Your task to perform on an android device: Empty the shopping cart on costco.com. Search for razer nari on costco.com, select the first entry, and add it to the cart. Image 0: 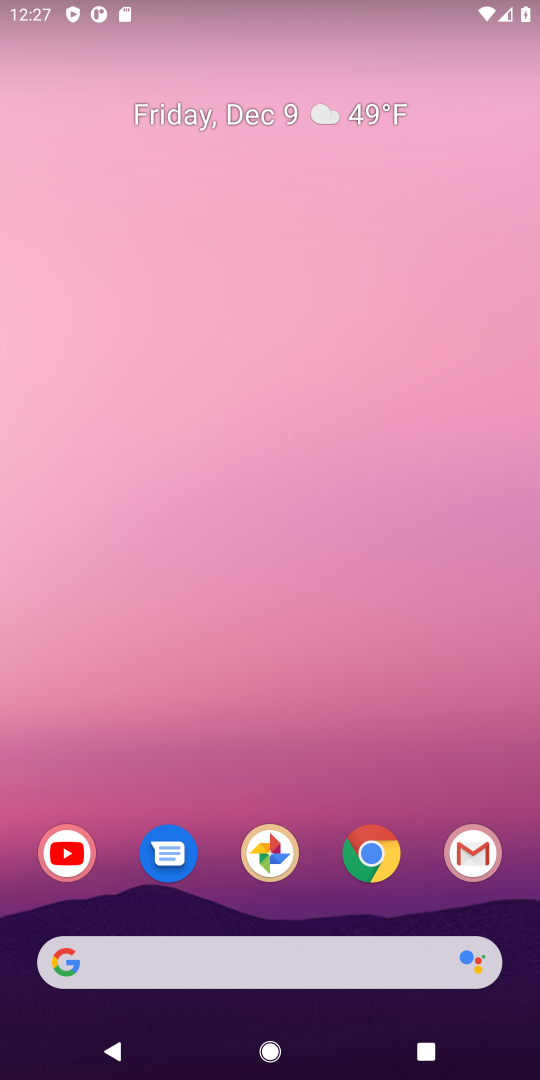
Step 0: drag from (178, 946) to (281, 134)
Your task to perform on an android device: Empty the shopping cart on costco.com. Search for razer nari on costco.com, select the first entry, and add it to the cart. Image 1: 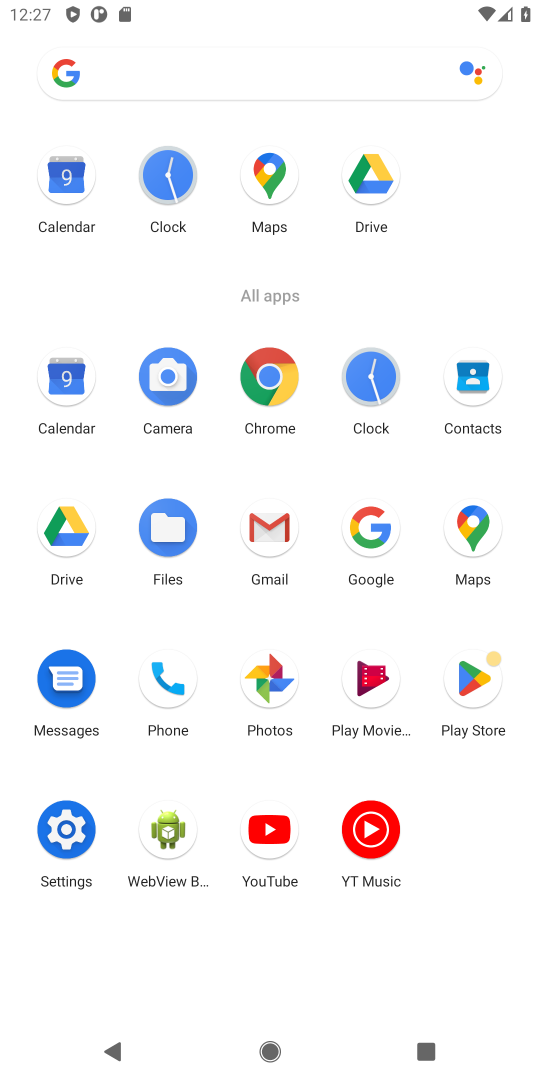
Step 1: click (373, 526)
Your task to perform on an android device: Empty the shopping cart on costco.com. Search for razer nari on costco.com, select the first entry, and add it to the cart. Image 2: 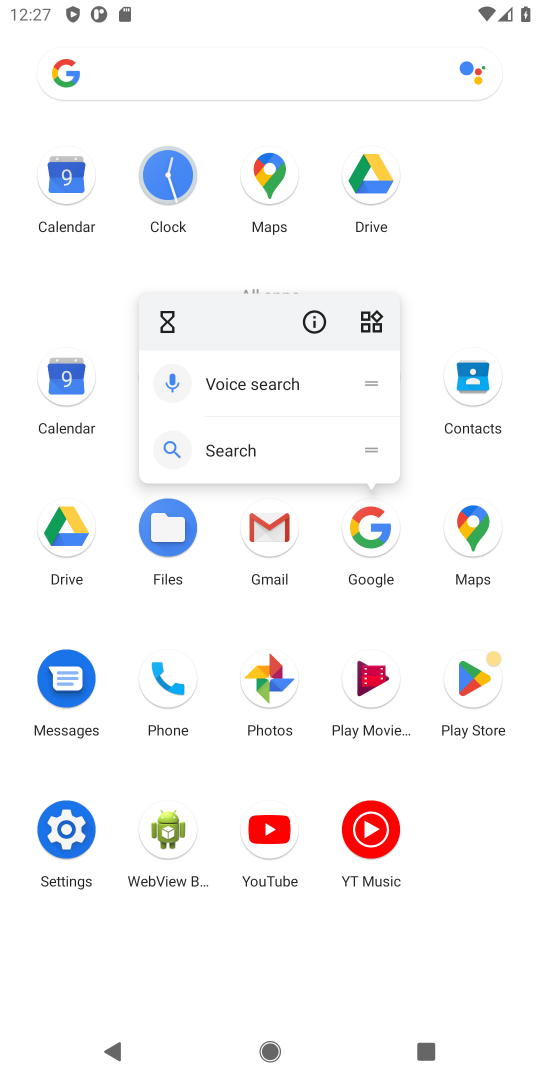
Step 2: click (368, 525)
Your task to perform on an android device: Empty the shopping cart on costco.com. Search for razer nari on costco.com, select the first entry, and add it to the cart. Image 3: 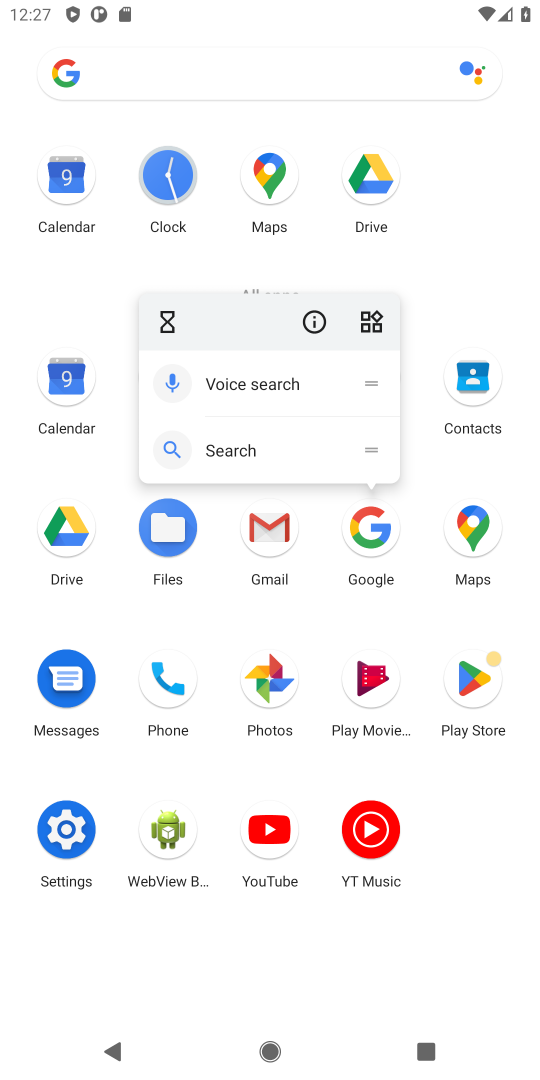
Step 3: click (361, 539)
Your task to perform on an android device: Empty the shopping cart on costco.com. Search for razer nari on costco.com, select the first entry, and add it to the cart. Image 4: 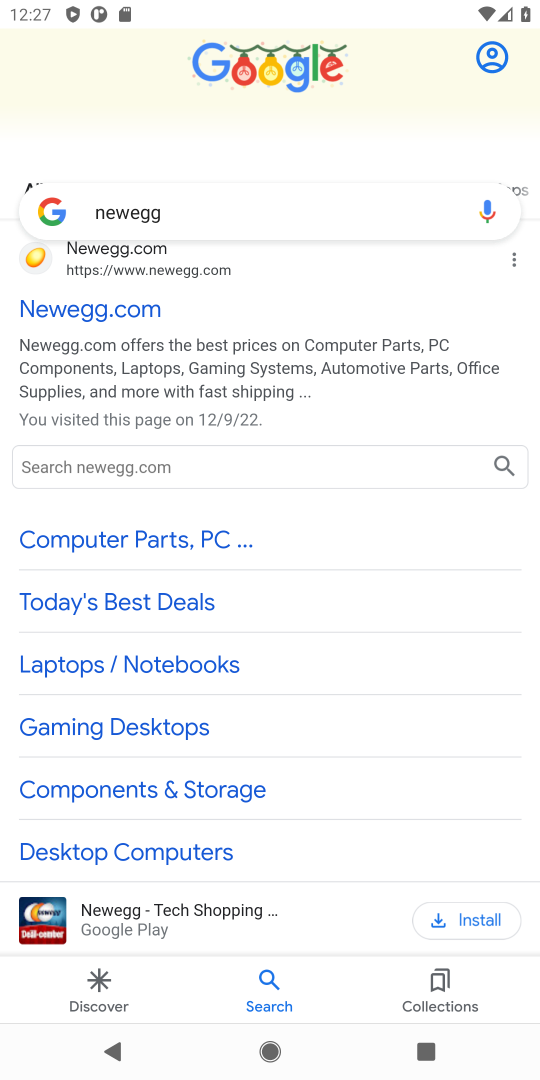
Step 4: click (152, 212)
Your task to perform on an android device: Empty the shopping cart on costco.com. Search for razer nari on costco.com, select the first entry, and add it to the cart. Image 5: 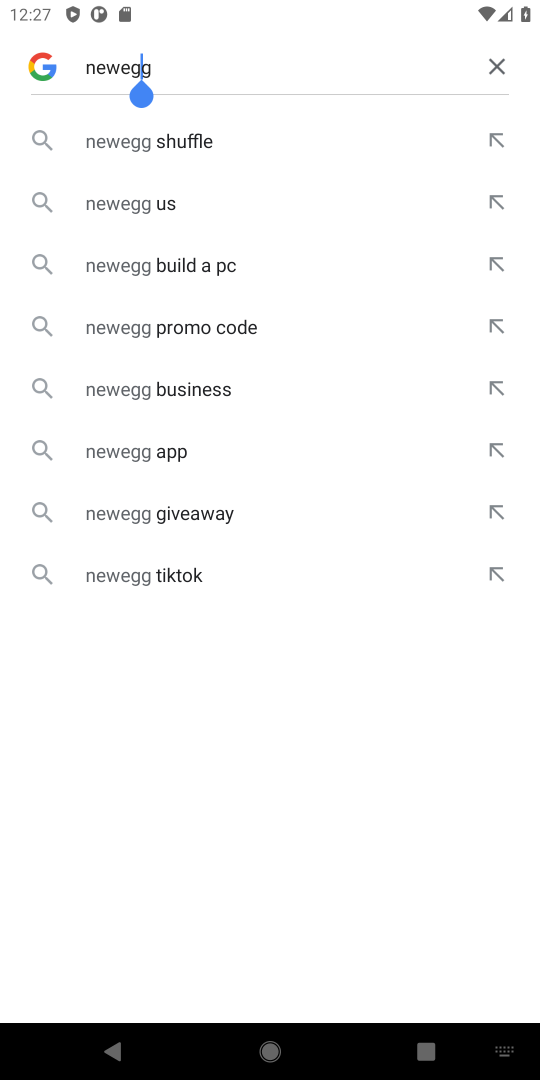
Step 5: click (495, 64)
Your task to perform on an android device: Empty the shopping cart on costco.com. Search for razer nari on costco.com, select the first entry, and add it to the cart. Image 6: 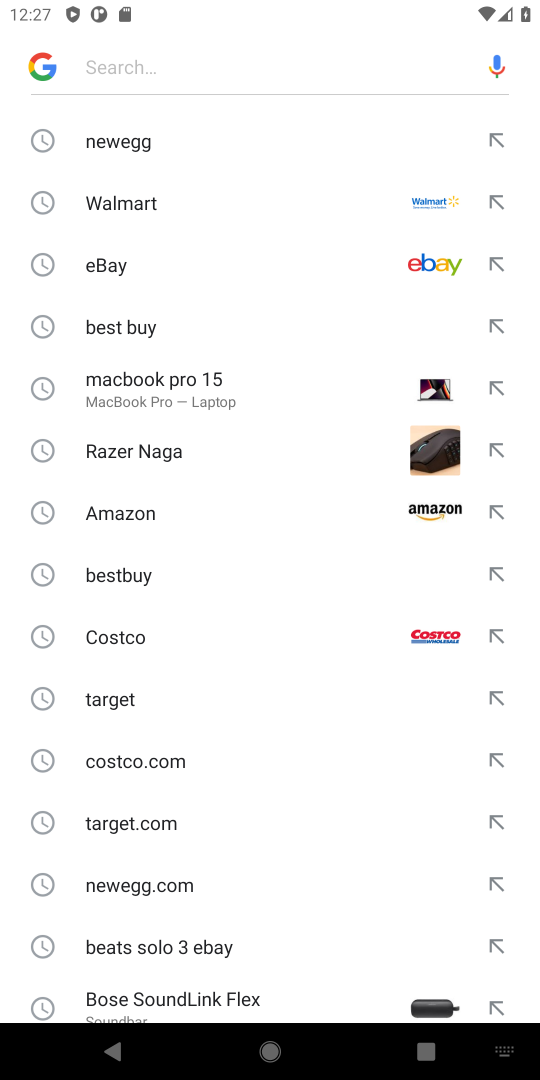
Step 6: click (127, 635)
Your task to perform on an android device: Empty the shopping cart on costco.com. Search for razer nari on costco.com, select the first entry, and add it to the cart. Image 7: 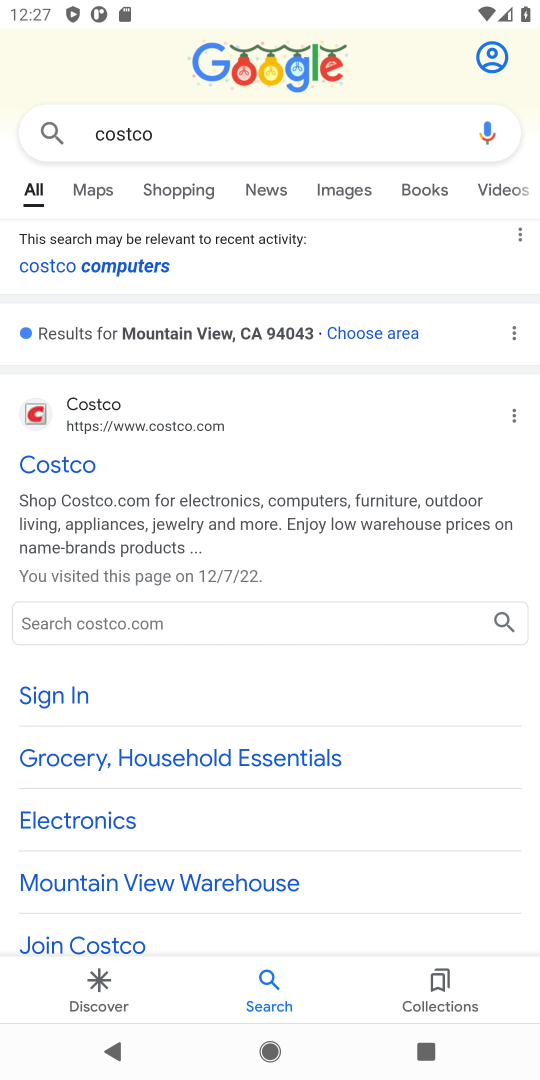
Step 7: click (47, 462)
Your task to perform on an android device: Empty the shopping cart on costco.com. Search for razer nari on costco.com, select the first entry, and add it to the cart. Image 8: 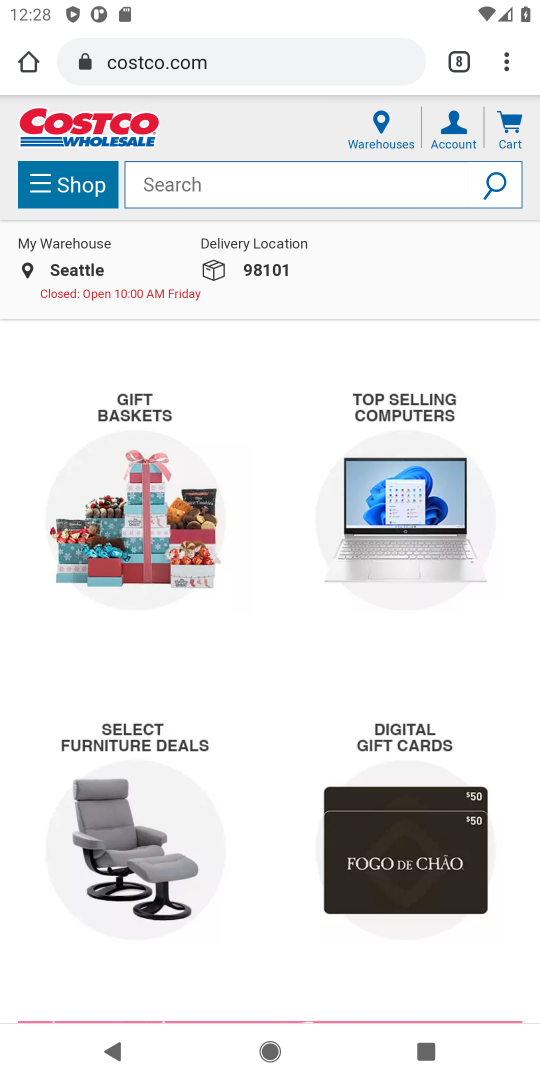
Step 8: click (170, 187)
Your task to perform on an android device: Empty the shopping cart on costco.com. Search for razer nari on costco.com, select the first entry, and add it to the cart. Image 9: 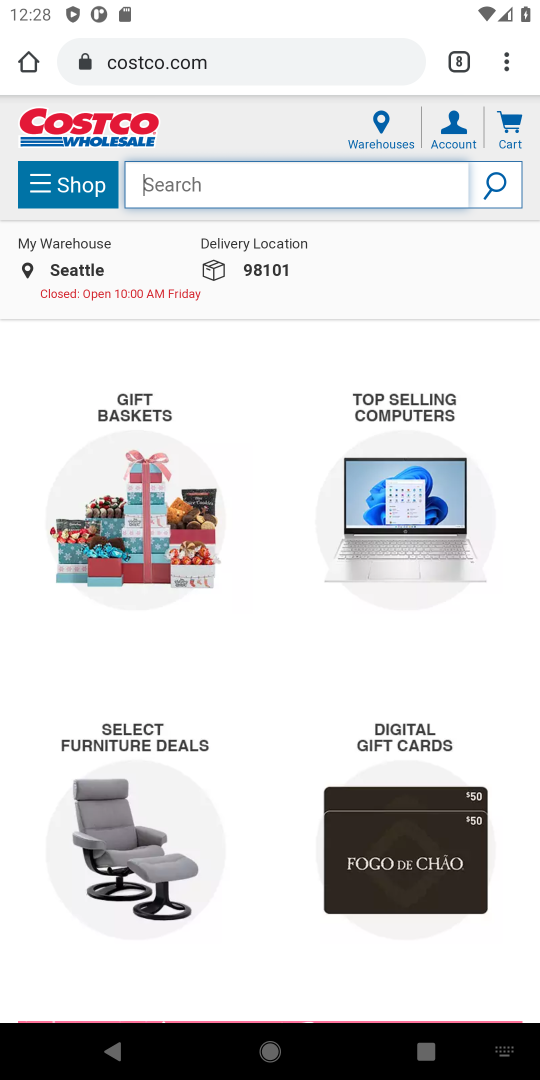
Step 9: type "razer nari "
Your task to perform on an android device: Empty the shopping cart on costco.com. Search for razer nari on costco.com, select the first entry, and add it to the cart. Image 10: 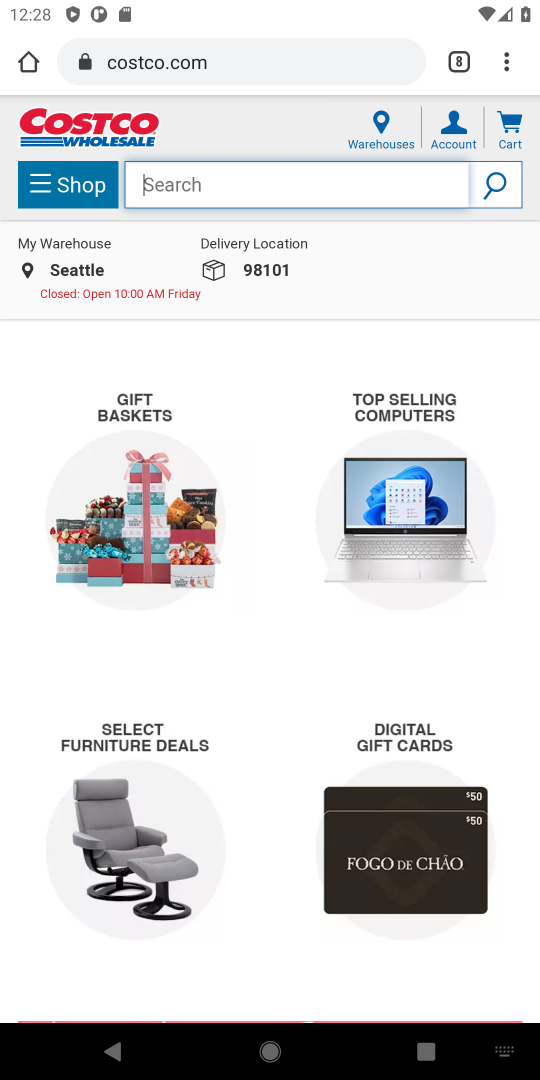
Step 10: click (500, 190)
Your task to perform on an android device: Empty the shopping cart on costco.com. Search for razer nari on costco.com, select the first entry, and add it to the cart. Image 11: 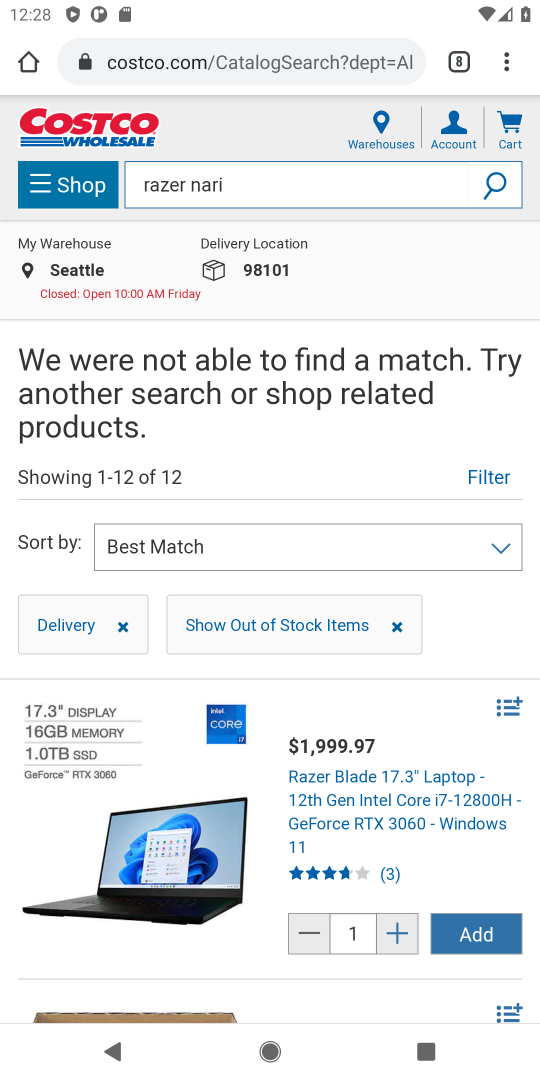
Step 11: click (466, 924)
Your task to perform on an android device: Empty the shopping cart on costco.com. Search for razer nari on costco.com, select the first entry, and add it to the cart. Image 12: 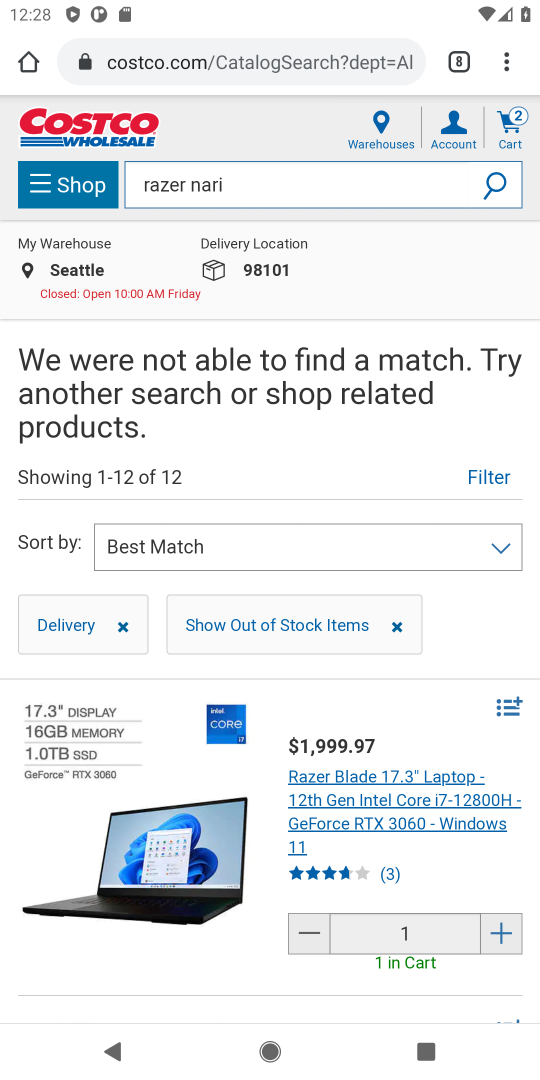
Step 12: click (515, 136)
Your task to perform on an android device: Empty the shopping cart on costco.com. Search for razer nari on costco.com, select the first entry, and add it to the cart. Image 13: 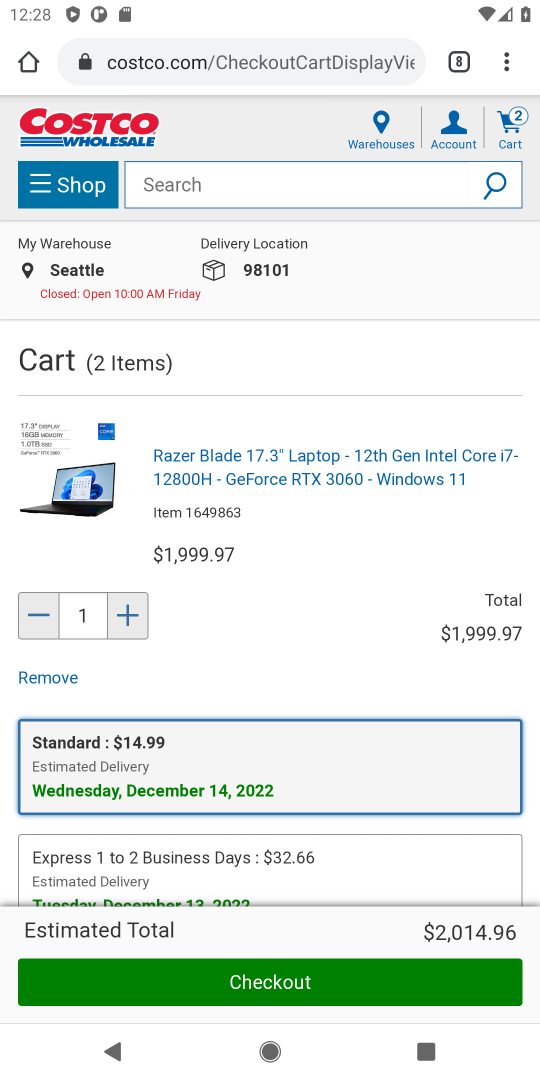
Step 13: click (241, 987)
Your task to perform on an android device: Empty the shopping cart on costco.com. Search for razer nari on costco.com, select the first entry, and add it to the cart. Image 14: 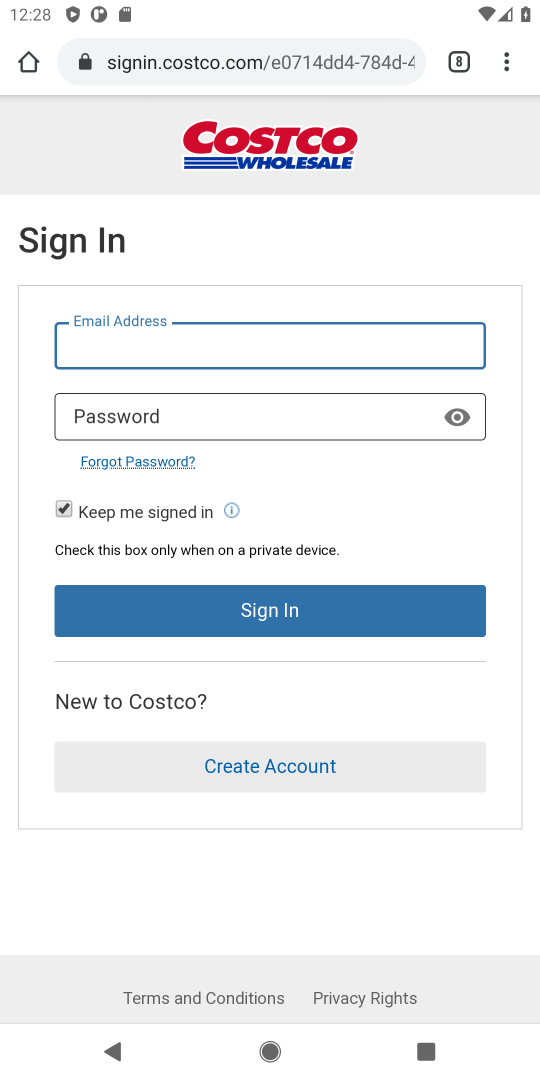
Step 14: task complete